Your task to perform on an android device: Go to Yahoo.com Image 0: 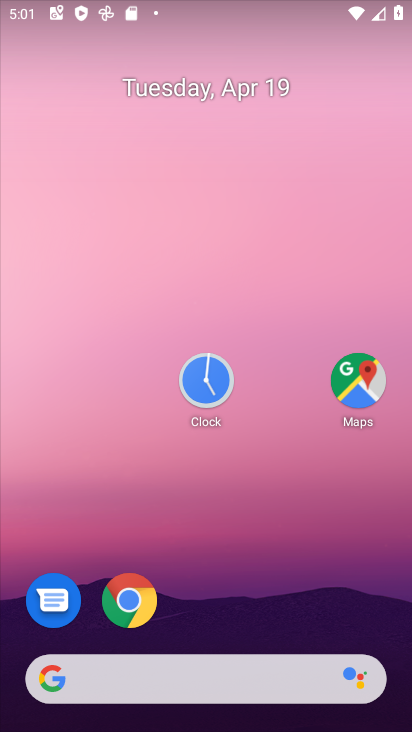
Step 0: drag from (243, 451) to (208, 117)
Your task to perform on an android device: Go to Yahoo.com Image 1: 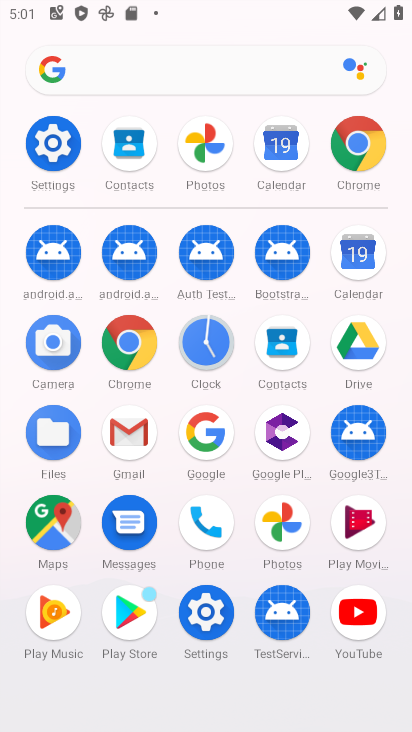
Step 1: click (371, 142)
Your task to perform on an android device: Go to Yahoo.com Image 2: 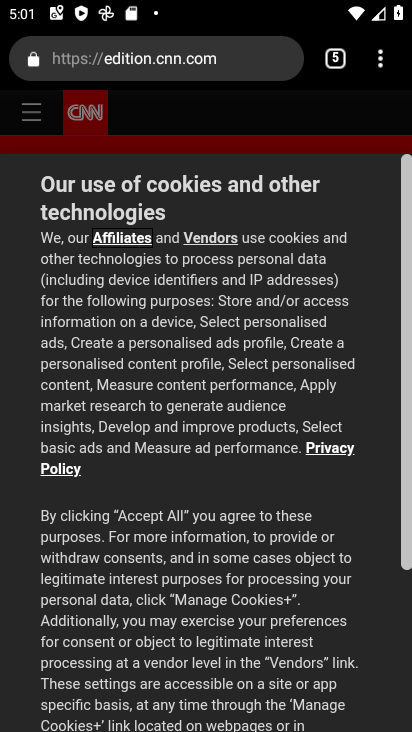
Step 2: press back button
Your task to perform on an android device: Go to Yahoo.com Image 3: 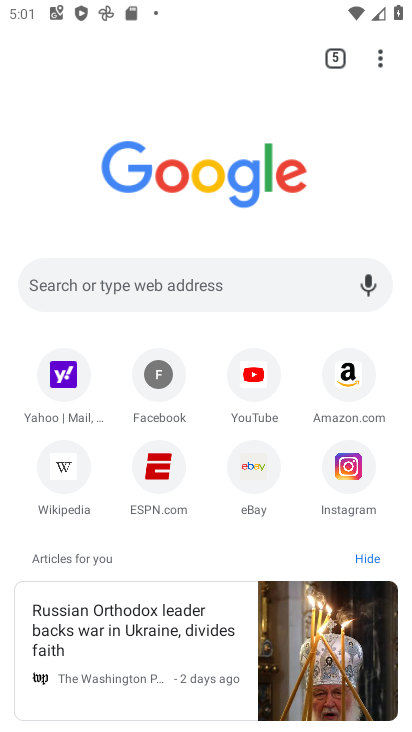
Step 3: click (71, 289)
Your task to perform on an android device: Go to Yahoo.com Image 4: 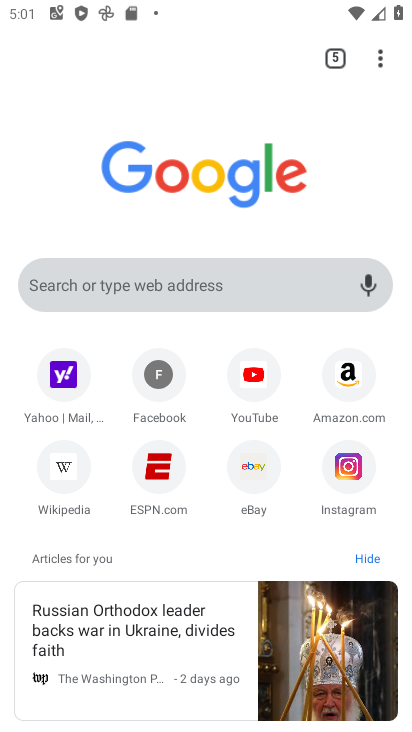
Step 4: click (71, 289)
Your task to perform on an android device: Go to Yahoo.com Image 5: 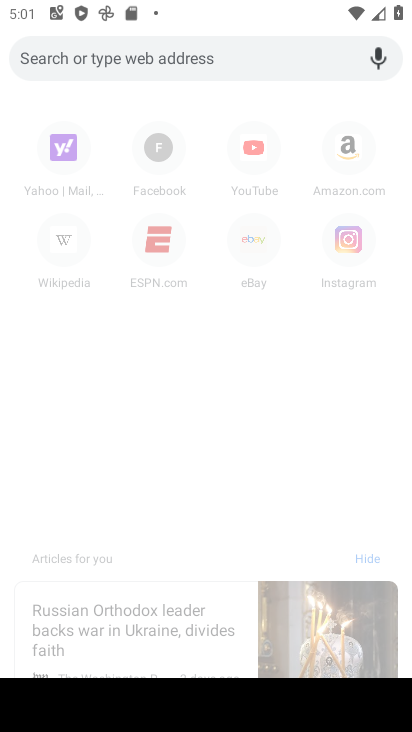
Step 5: click (72, 150)
Your task to perform on an android device: Go to Yahoo.com Image 6: 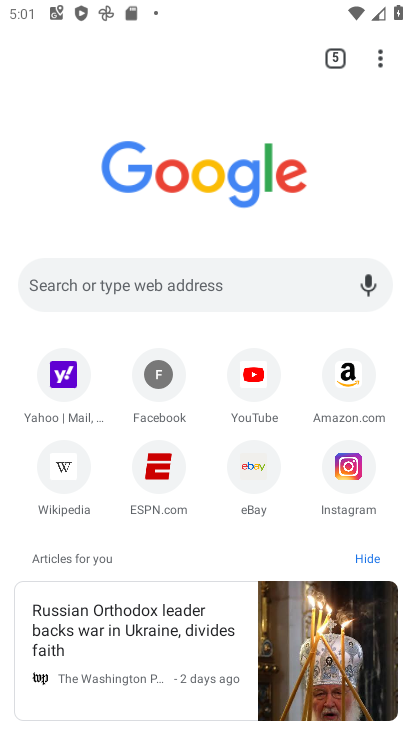
Step 6: click (72, 150)
Your task to perform on an android device: Go to Yahoo.com Image 7: 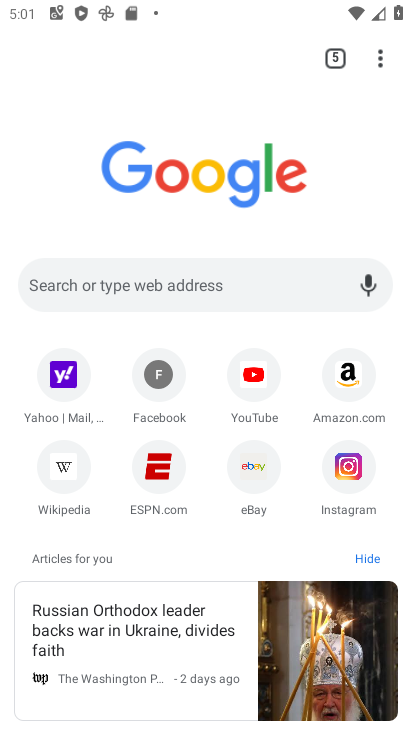
Step 7: click (62, 385)
Your task to perform on an android device: Go to Yahoo.com Image 8: 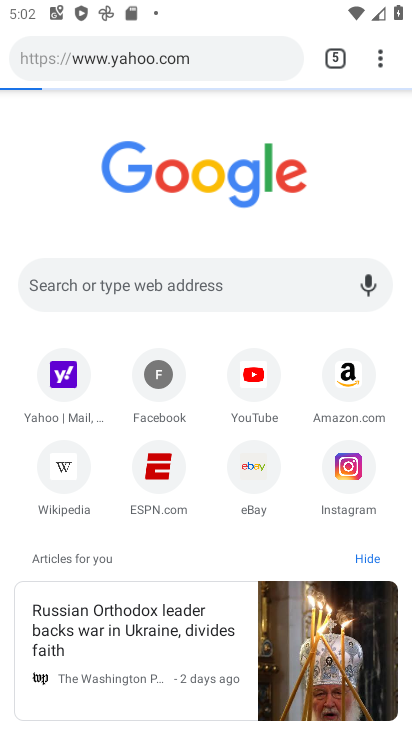
Step 8: click (61, 376)
Your task to perform on an android device: Go to Yahoo.com Image 9: 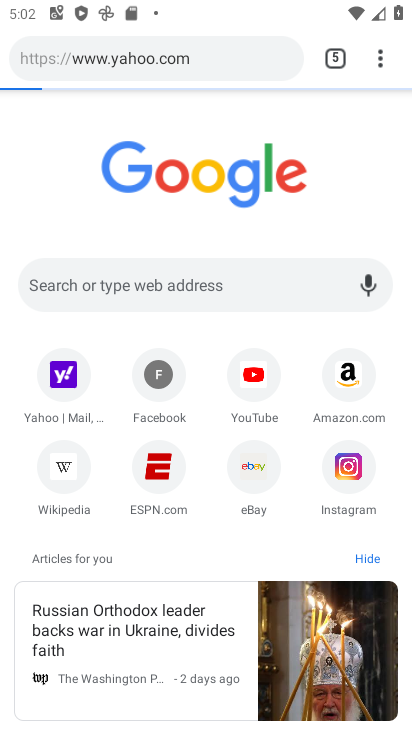
Step 9: click (61, 376)
Your task to perform on an android device: Go to Yahoo.com Image 10: 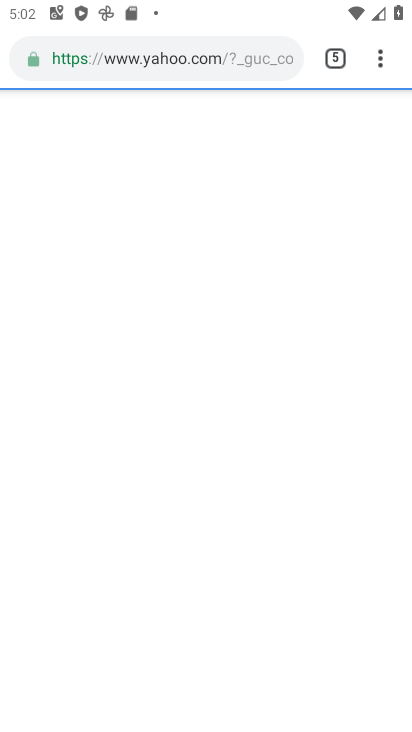
Step 10: click (63, 374)
Your task to perform on an android device: Go to Yahoo.com Image 11: 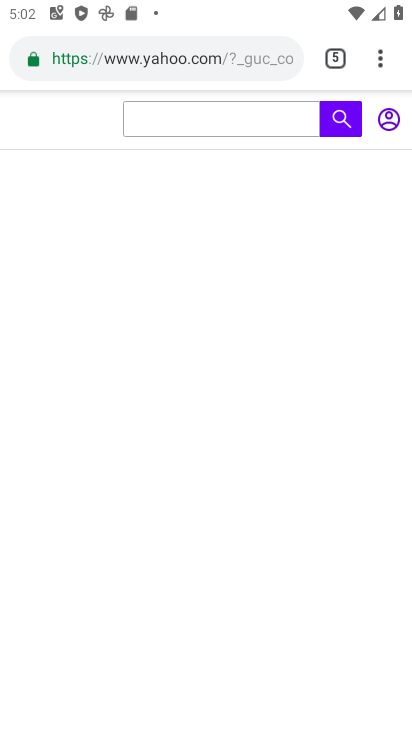
Step 11: click (64, 373)
Your task to perform on an android device: Go to Yahoo.com Image 12: 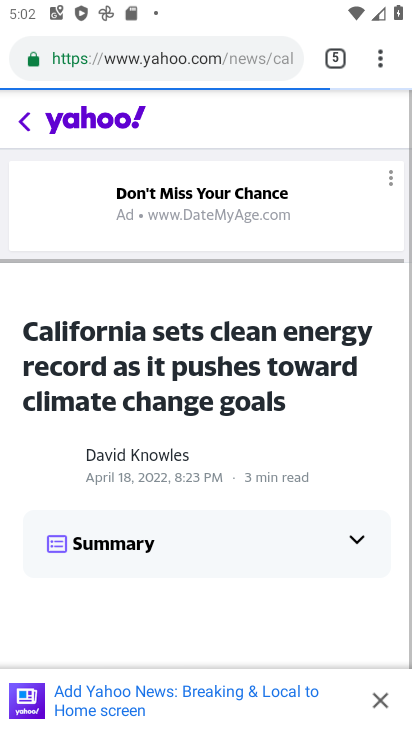
Step 12: task complete